Your task to perform on an android device: Open maps Image 0: 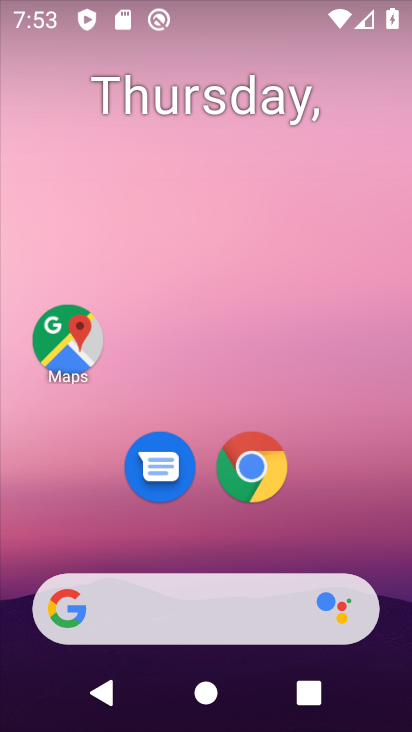
Step 0: click (80, 328)
Your task to perform on an android device: Open maps Image 1: 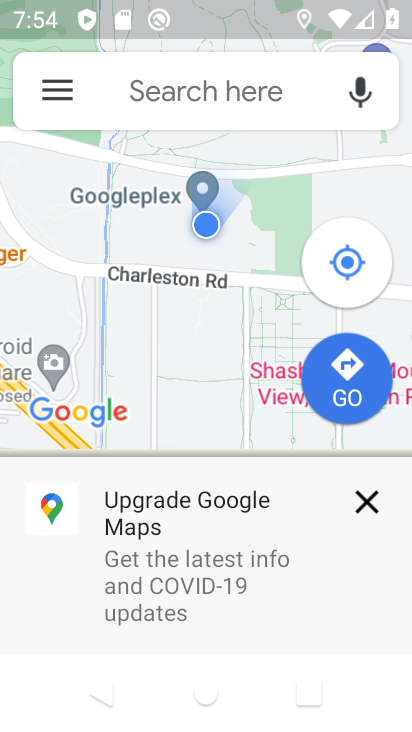
Step 1: task complete